Your task to perform on an android device: Go to CNN.com Image 0: 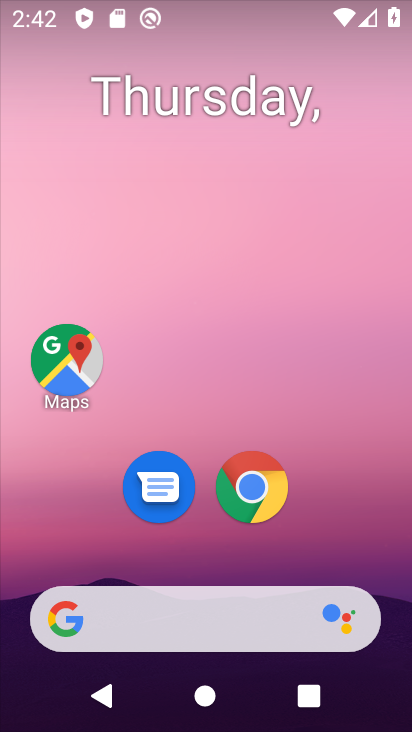
Step 0: click (245, 487)
Your task to perform on an android device: Go to CNN.com Image 1: 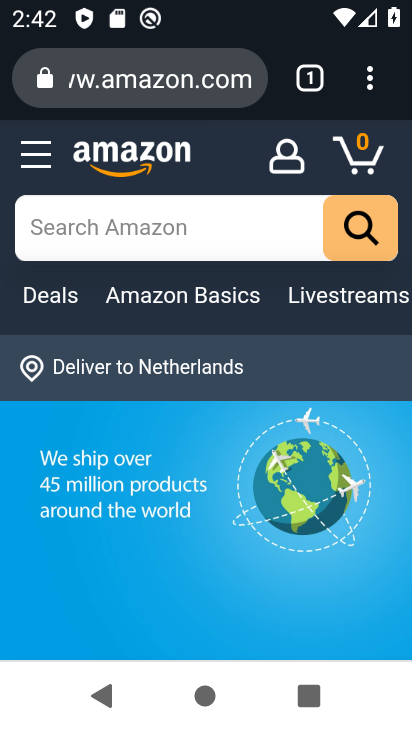
Step 1: click (148, 69)
Your task to perform on an android device: Go to CNN.com Image 2: 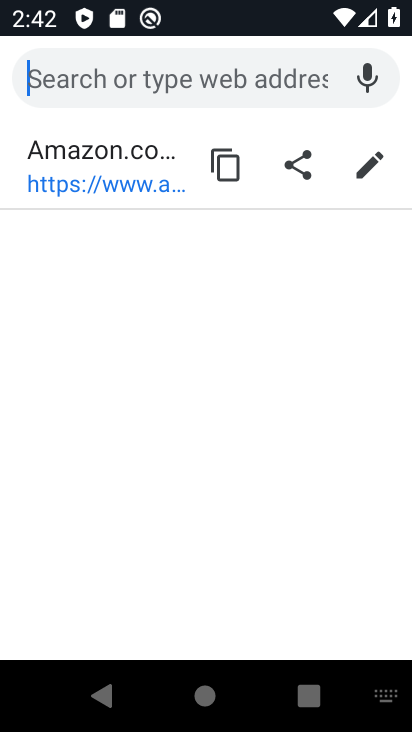
Step 2: type "cnn"
Your task to perform on an android device: Go to CNN.com Image 3: 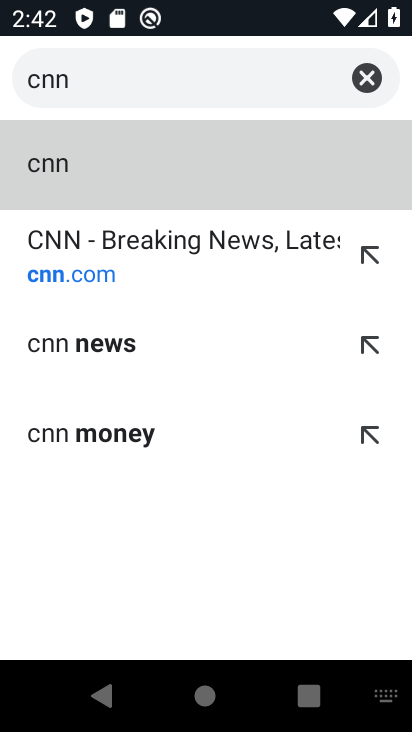
Step 3: click (81, 243)
Your task to perform on an android device: Go to CNN.com Image 4: 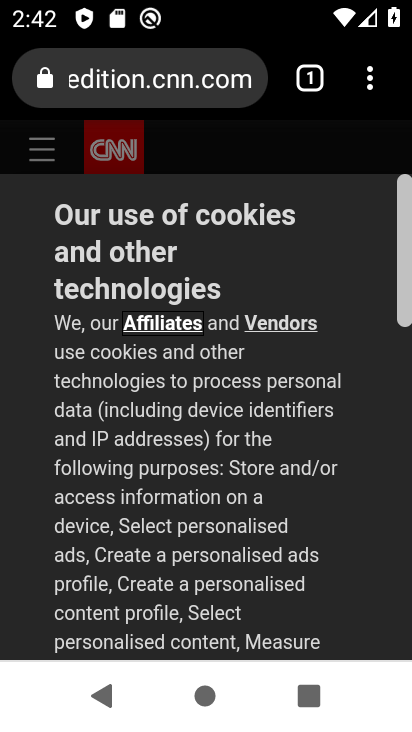
Step 4: task complete